Your task to perform on an android device: turn off picture-in-picture Image 0: 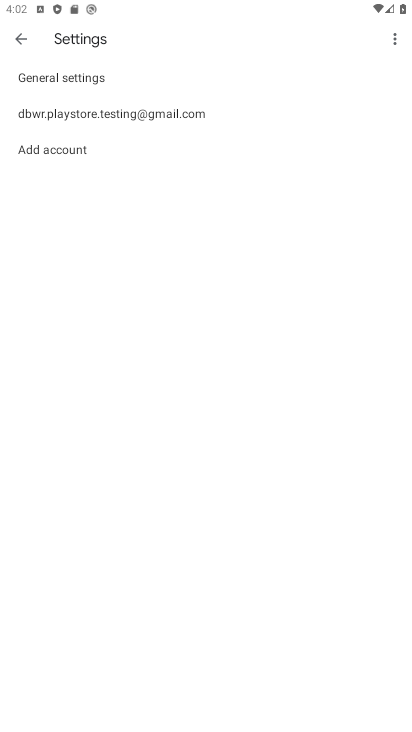
Step 0: press home button
Your task to perform on an android device: turn off picture-in-picture Image 1: 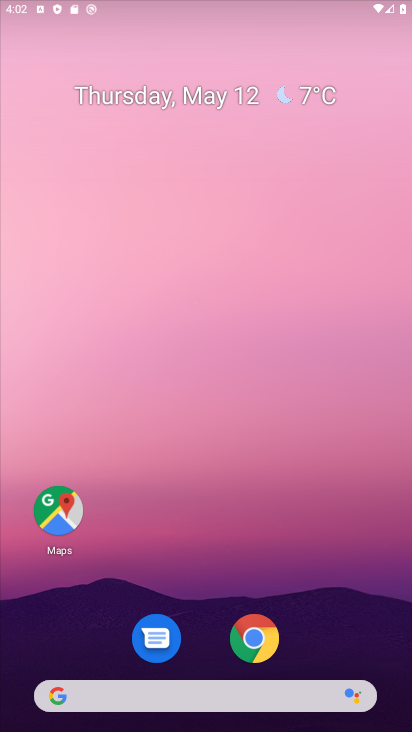
Step 1: drag from (257, 470) to (212, 116)
Your task to perform on an android device: turn off picture-in-picture Image 2: 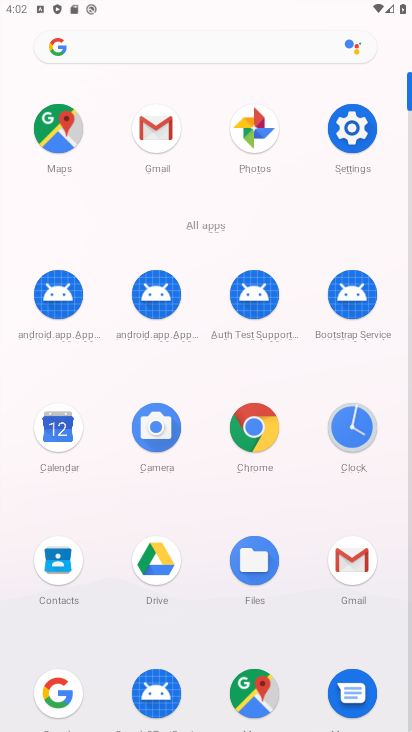
Step 2: click (350, 109)
Your task to perform on an android device: turn off picture-in-picture Image 3: 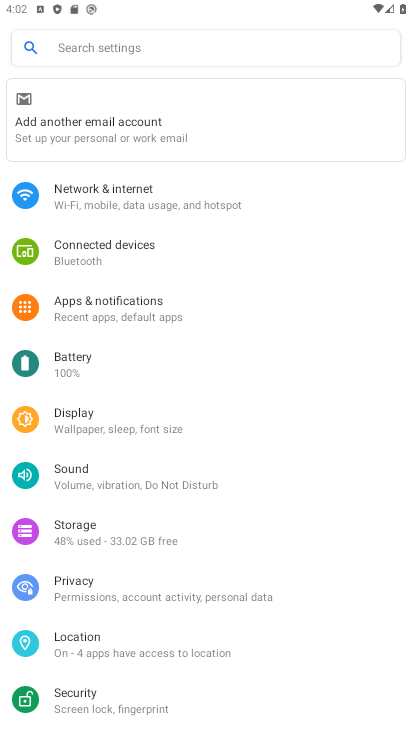
Step 3: click (152, 308)
Your task to perform on an android device: turn off picture-in-picture Image 4: 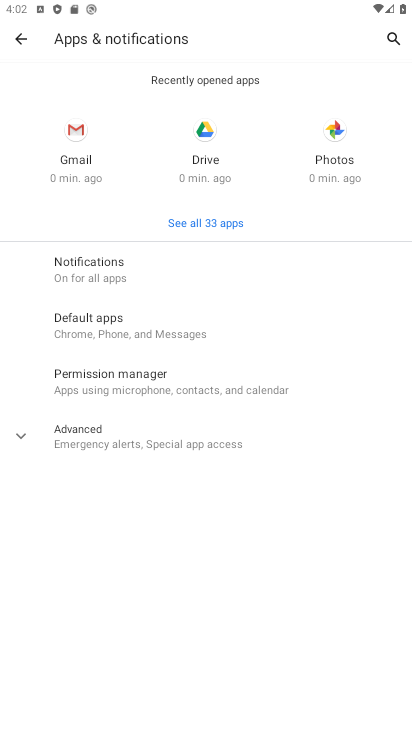
Step 4: click (199, 443)
Your task to perform on an android device: turn off picture-in-picture Image 5: 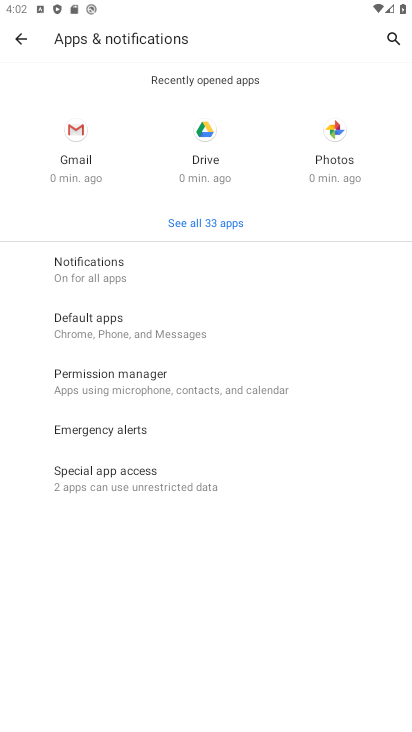
Step 5: click (158, 464)
Your task to perform on an android device: turn off picture-in-picture Image 6: 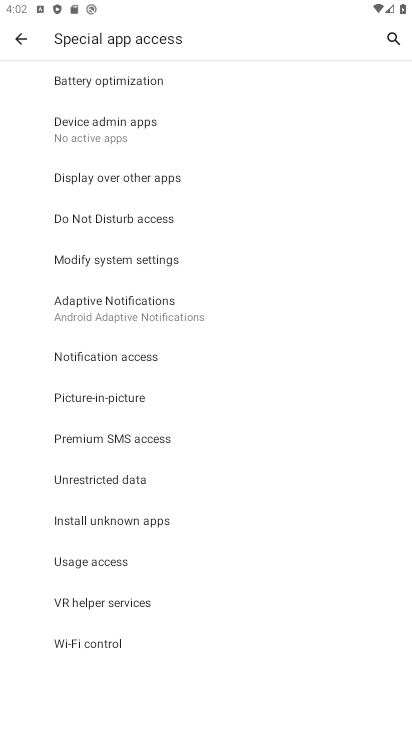
Step 6: click (116, 398)
Your task to perform on an android device: turn off picture-in-picture Image 7: 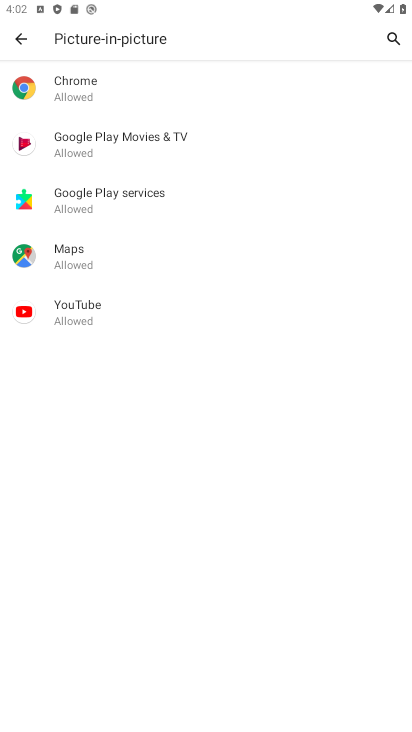
Step 7: click (292, 239)
Your task to perform on an android device: turn off picture-in-picture Image 8: 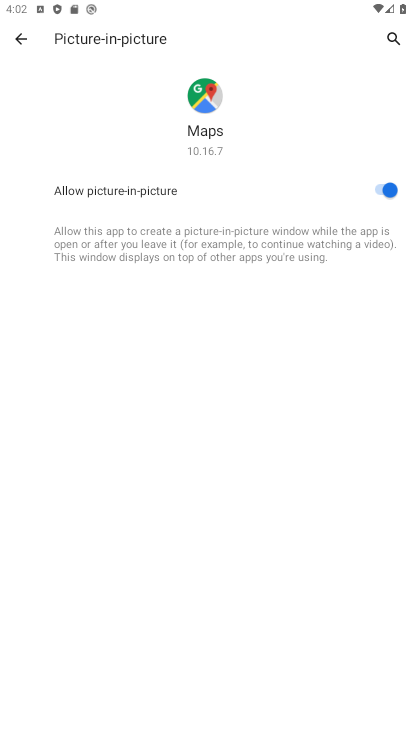
Step 8: click (387, 195)
Your task to perform on an android device: turn off picture-in-picture Image 9: 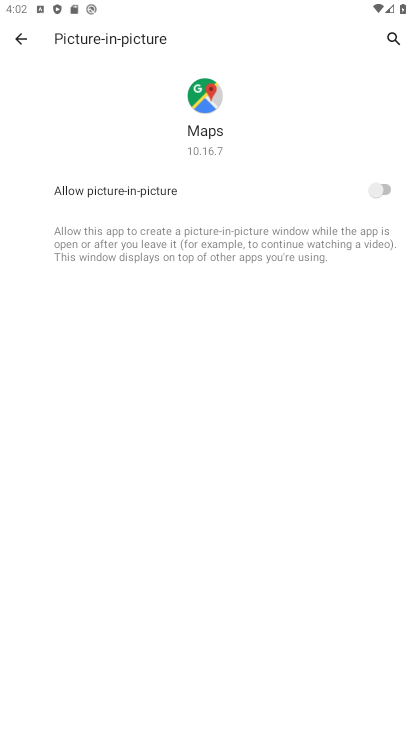
Step 9: task complete